Your task to perform on an android device: When is my next meeting? Image 0: 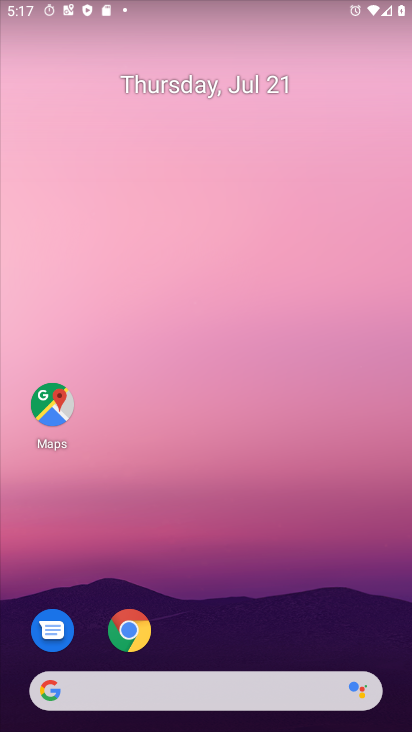
Step 0: drag from (207, 686) to (268, 215)
Your task to perform on an android device: When is my next meeting? Image 1: 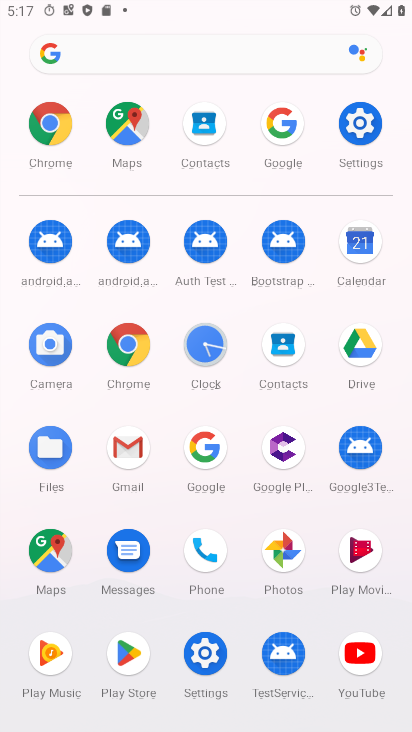
Step 1: click (360, 246)
Your task to perform on an android device: When is my next meeting? Image 2: 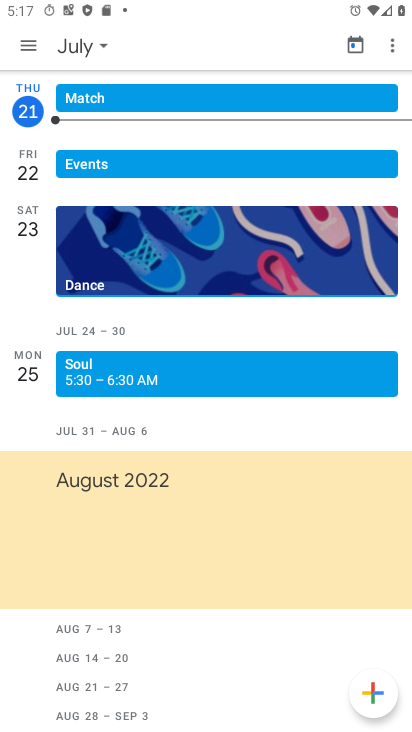
Step 2: click (355, 45)
Your task to perform on an android device: When is my next meeting? Image 3: 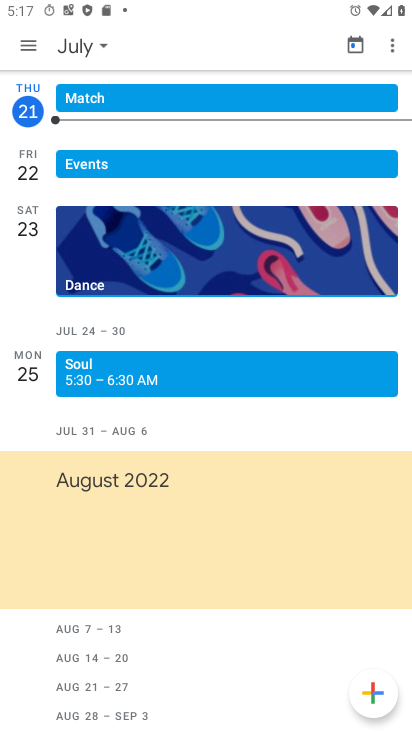
Step 3: click (101, 44)
Your task to perform on an android device: When is my next meeting? Image 4: 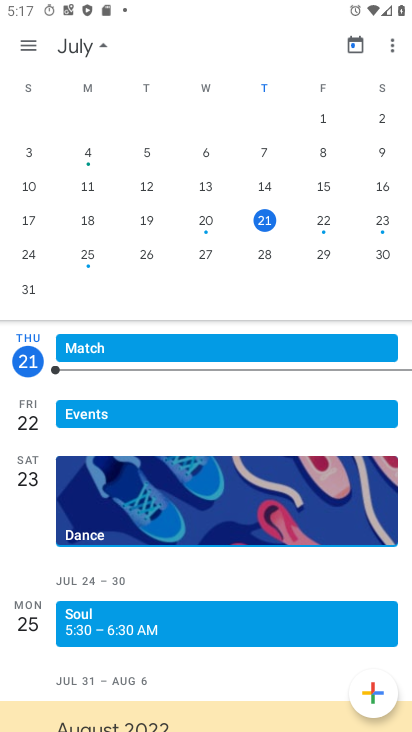
Step 4: click (323, 222)
Your task to perform on an android device: When is my next meeting? Image 5: 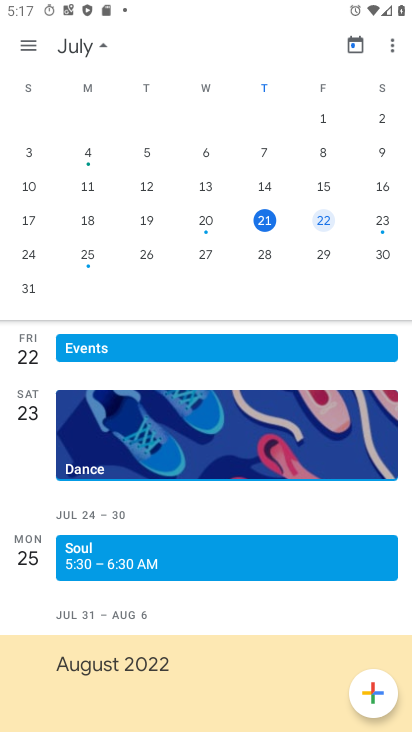
Step 5: click (28, 44)
Your task to perform on an android device: When is my next meeting? Image 6: 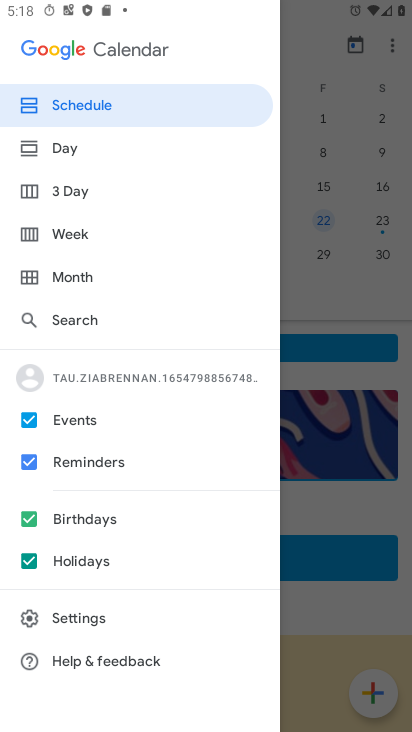
Step 6: click (58, 104)
Your task to perform on an android device: When is my next meeting? Image 7: 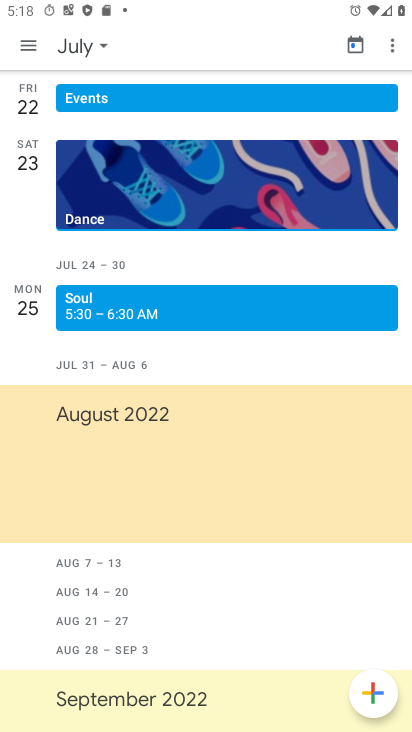
Step 7: task complete